Your task to perform on an android device: turn on bluetooth scan Image 0: 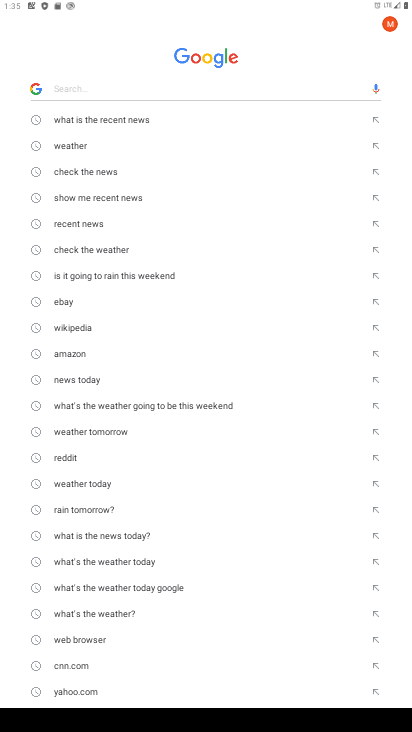
Step 0: press home button
Your task to perform on an android device: turn on bluetooth scan Image 1: 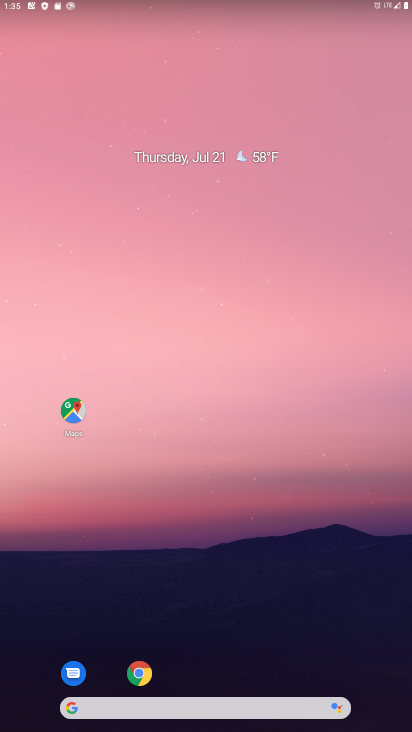
Step 1: drag from (221, 678) to (253, 108)
Your task to perform on an android device: turn on bluetooth scan Image 2: 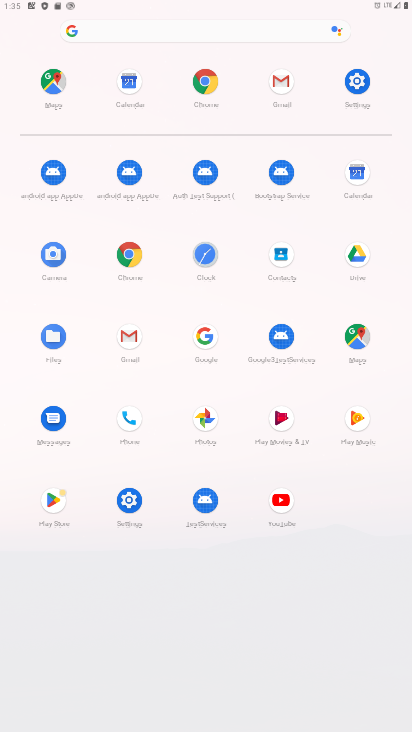
Step 2: click (351, 82)
Your task to perform on an android device: turn on bluetooth scan Image 3: 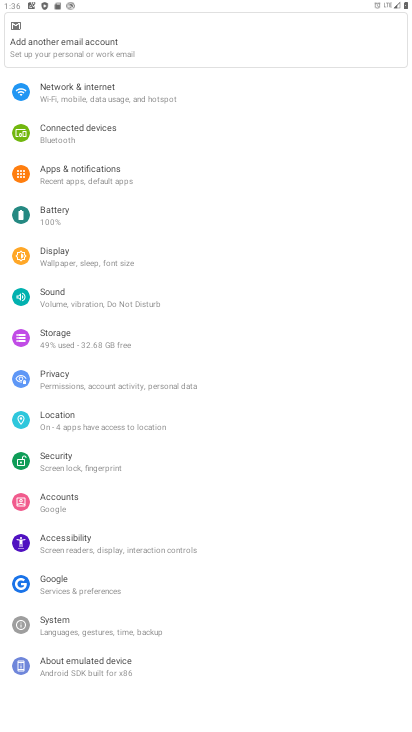
Step 3: drag from (132, 84) to (128, 504)
Your task to perform on an android device: turn on bluetooth scan Image 4: 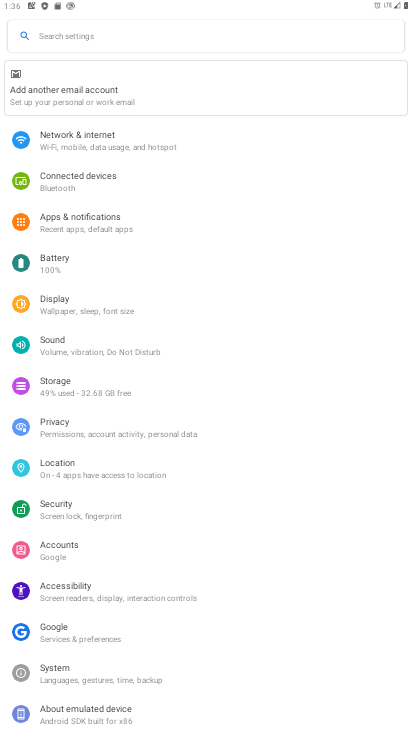
Step 4: click (111, 24)
Your task to perform on an android device: turn on bluetooth scan Image 5: 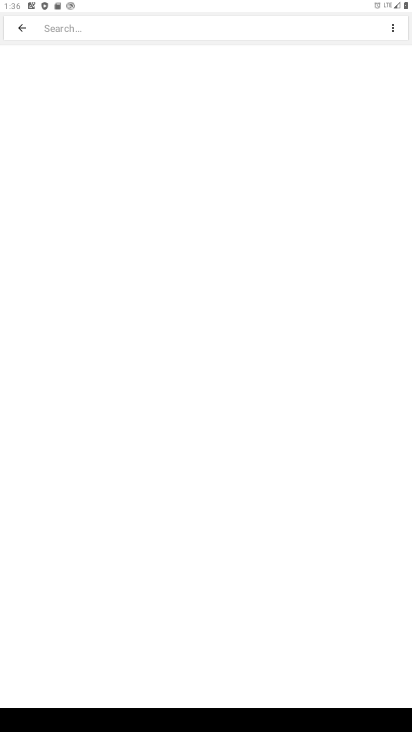
Step 5: click (129, 26)
Your task to perform on an android device: turn on bluetooth scan Image 6: 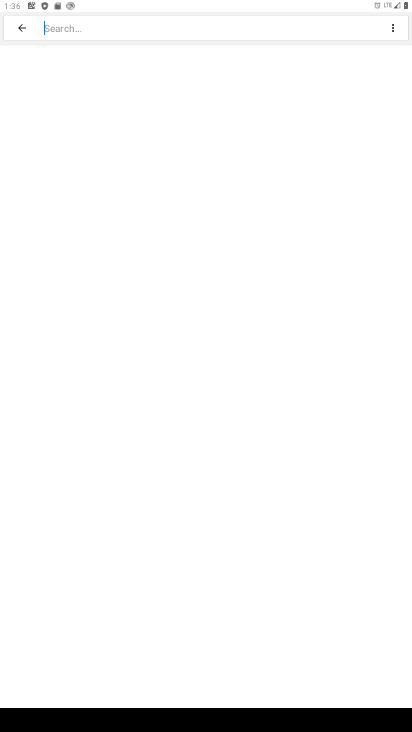
Step 6: type "bluetooth "
Your task to perform on an android device: turn on bluetooth scan Image 7: 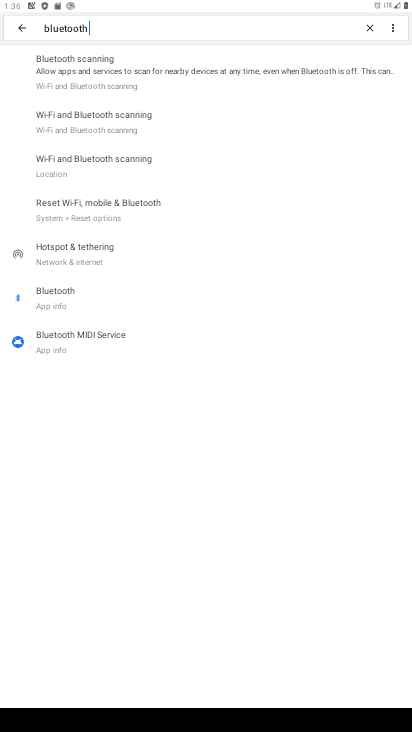
Step 7: click (98, 55)
Your task to perform on an android device: turn on bluetooth scan Image 8: 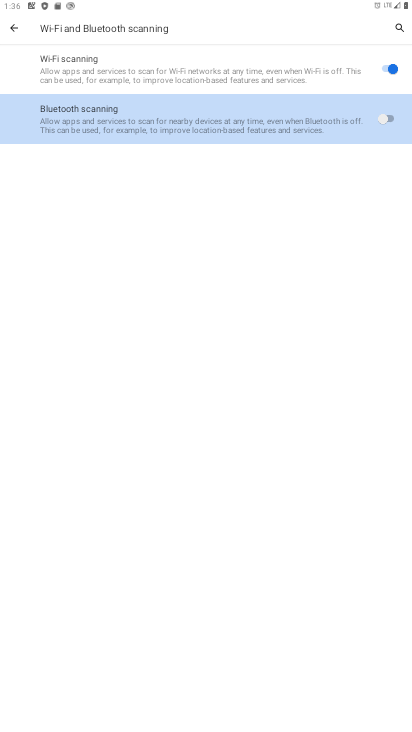
Step 8: click (390, 114)
Your task to perform on an android device: turn on bluetooth scan Image 9: 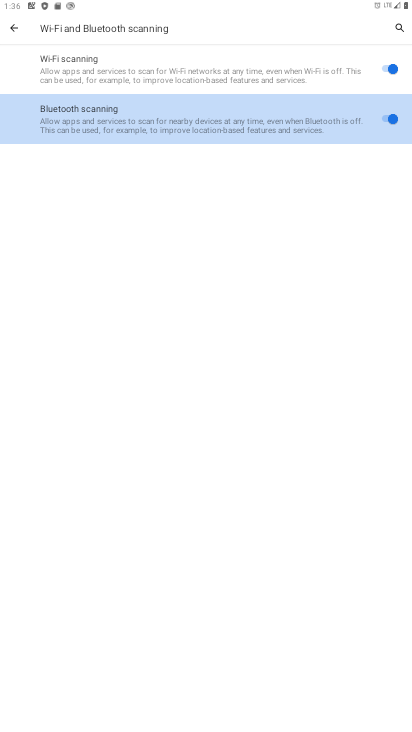
Step 9: task complete